Your task to perform on an android device: Open the calendar and show me this week's events? Image 0: 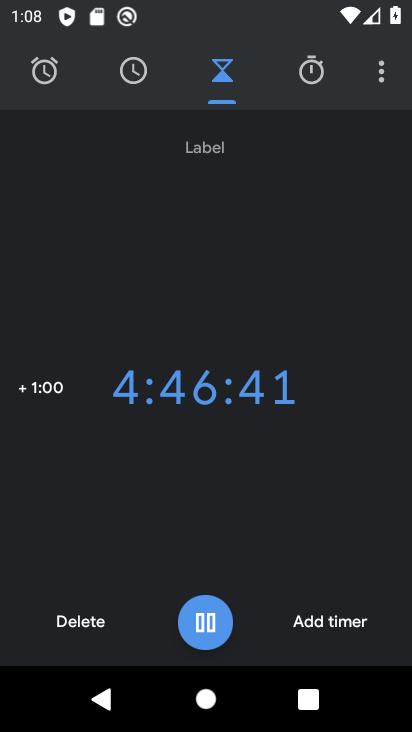
Step 0: press home button
Your task to perform on an android device: Open the calendar and show me this week's events? Image 1: 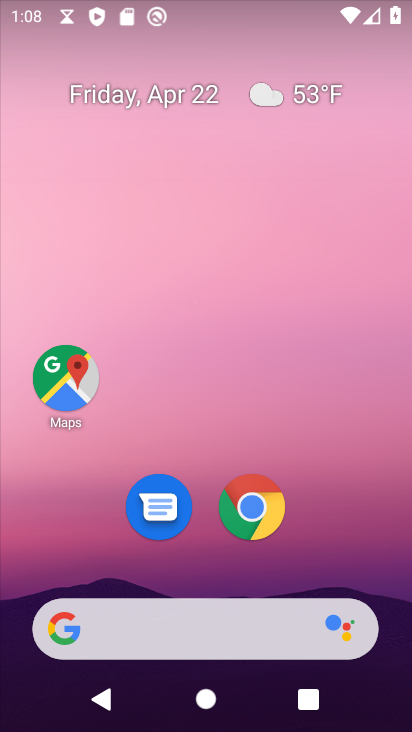
Step 1: drag from (310, 520) to (293, 157)
Your task to perform on an android device: Open the calendar and show me this week's events? Image 2: 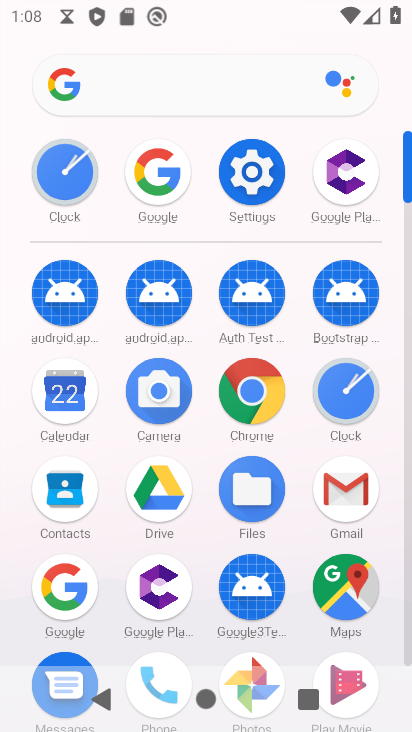
Step 2: click (74, 404)
Your task to perform on an android device: Open the calendar and show me this week's events? Image 3: 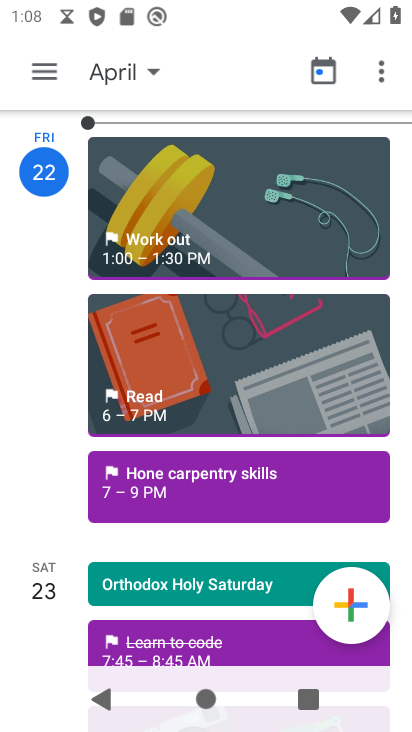
Step 3: click (120, 71)
Your task to perform on an android device: Open the calendar and show me this week's events? Image 4: 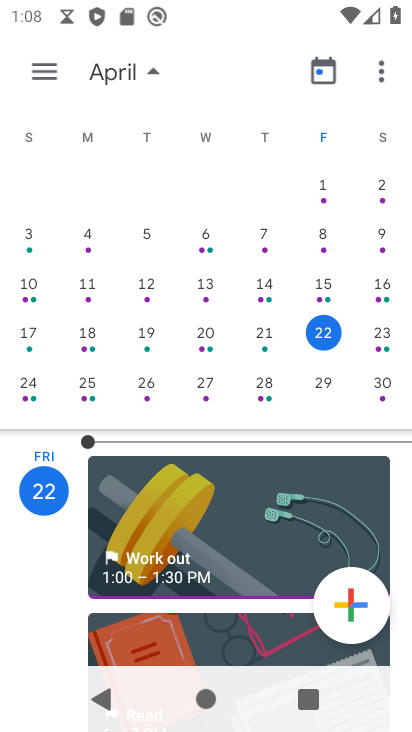
Step 4: task complete